Your task to perform on an android device: turn pop-ups off in chrome Image 0: 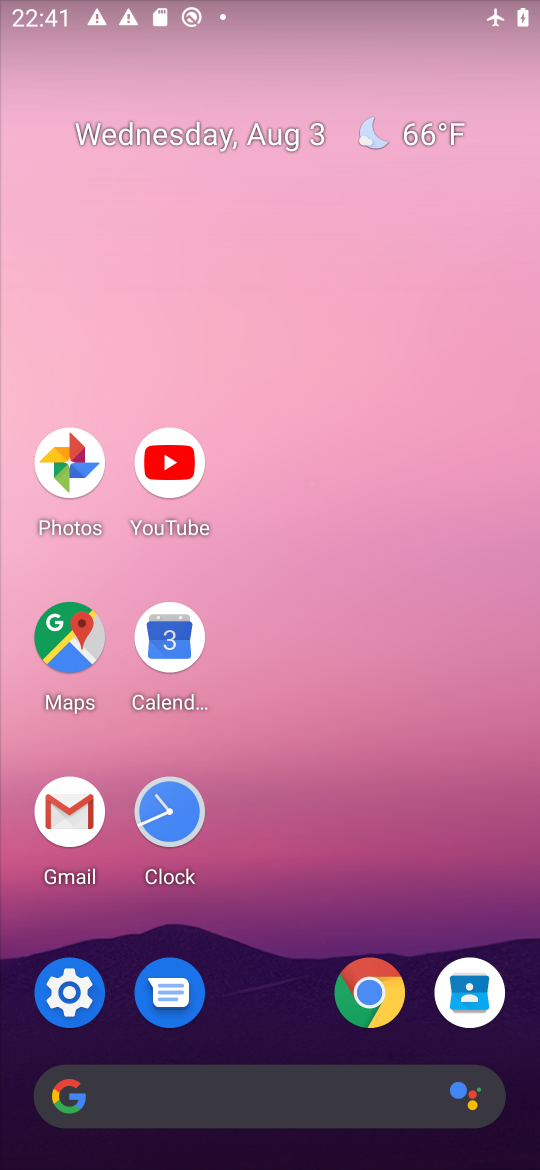
Step 0: click (371, 993)
Your task to perform on an android device: turn pop-ups off in chrome Image 1: 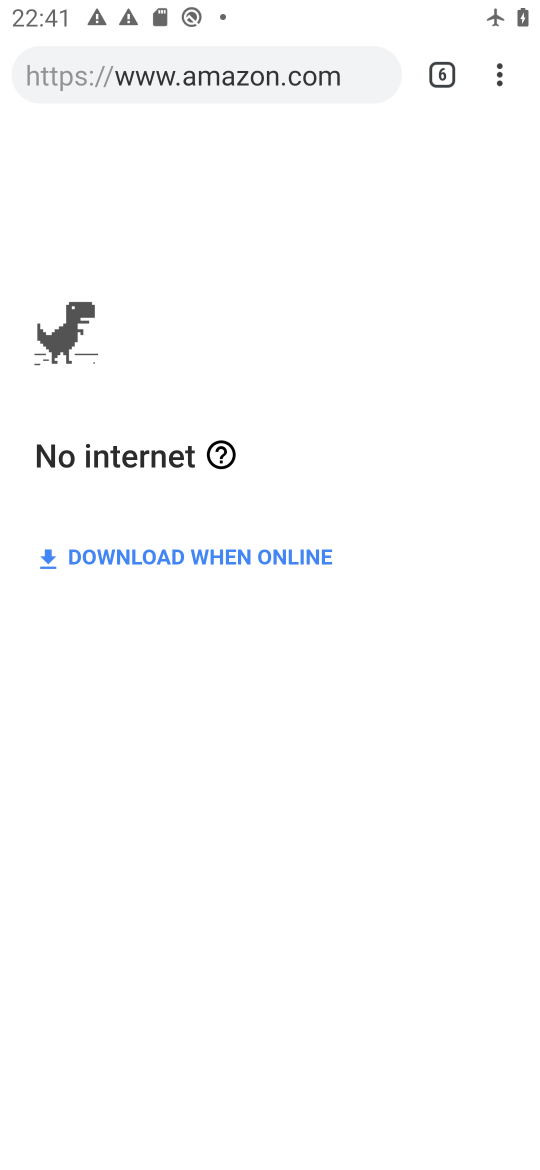
Step 1: click (498, 62)
Your task to perform on an android device: turn pop-ups off in chrome Image 2: 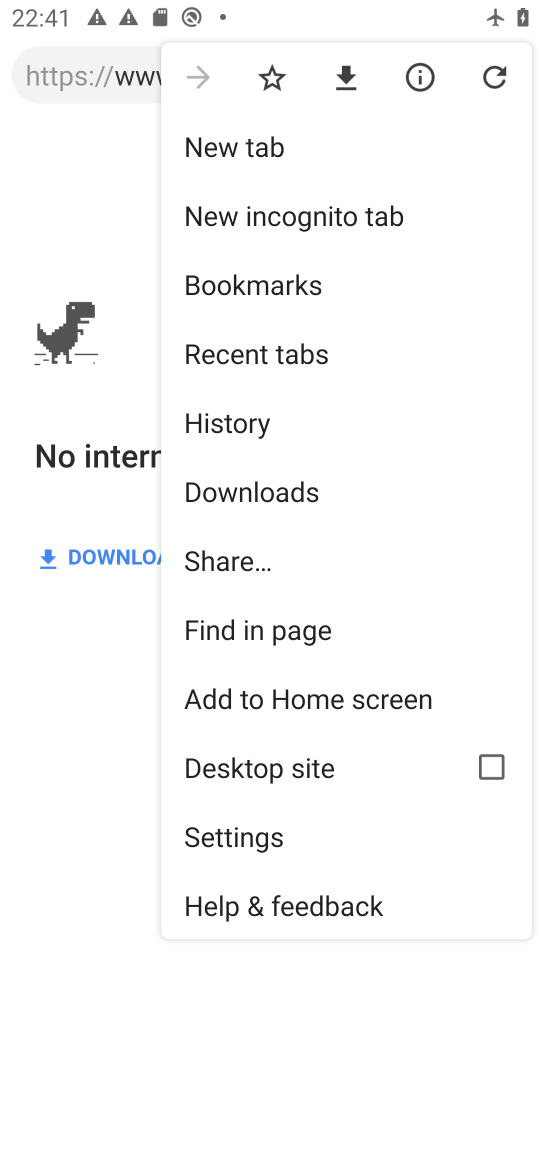
Step 2: click (228, 827)
Your task to perform on an android device: turn pop-ups off in chrome Image 3: 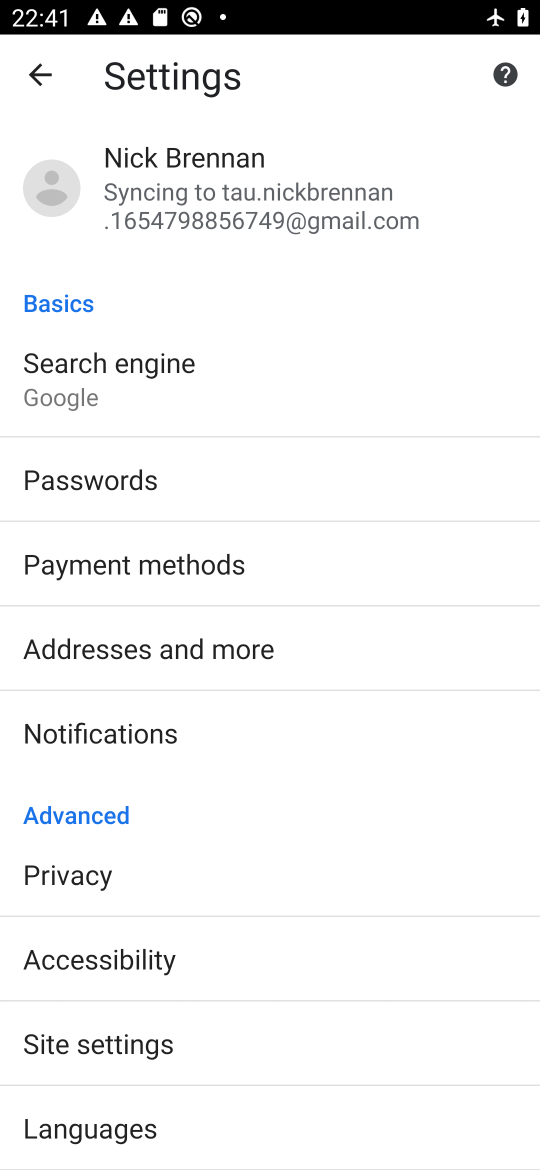
Step 3: drag from (288, 993) to (249, 589)
Your task to perform on an android device: turn pop-ups off in chrome Image 4: 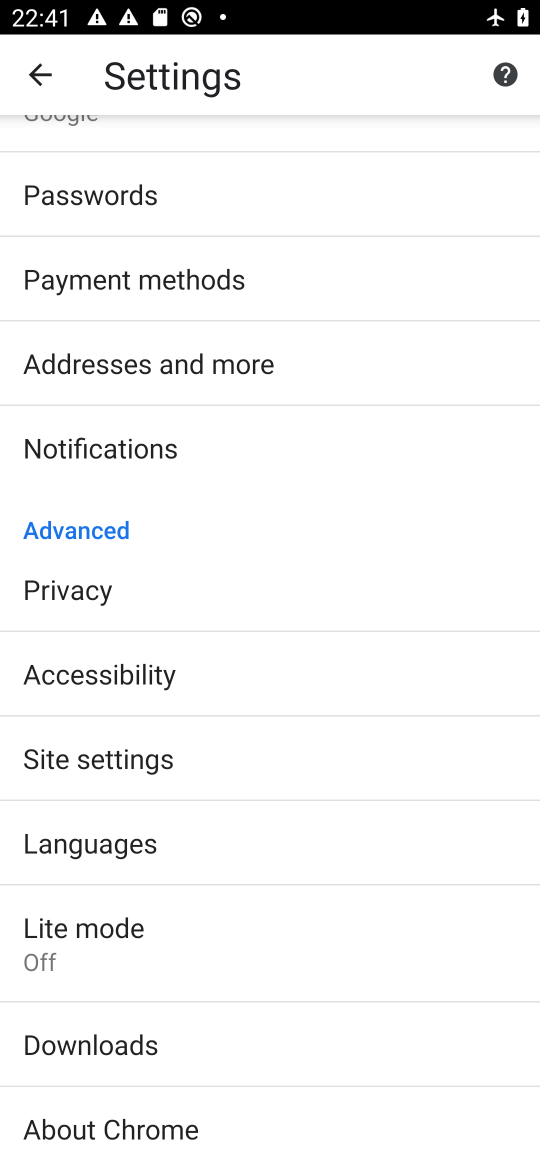
Step 4: click (78, 762)
Your task to perform on an android device: turn pop-ups off in chrome Image 5: 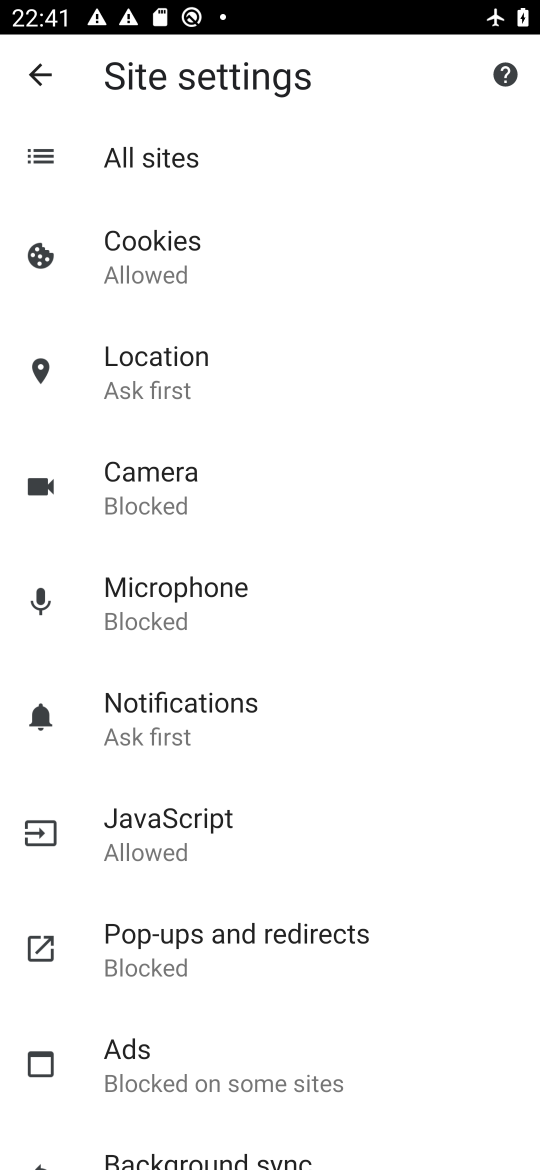
Step 5: click (201, 938)
Your task to perform on an android device: turn pop-ups off in chrome Image 6: 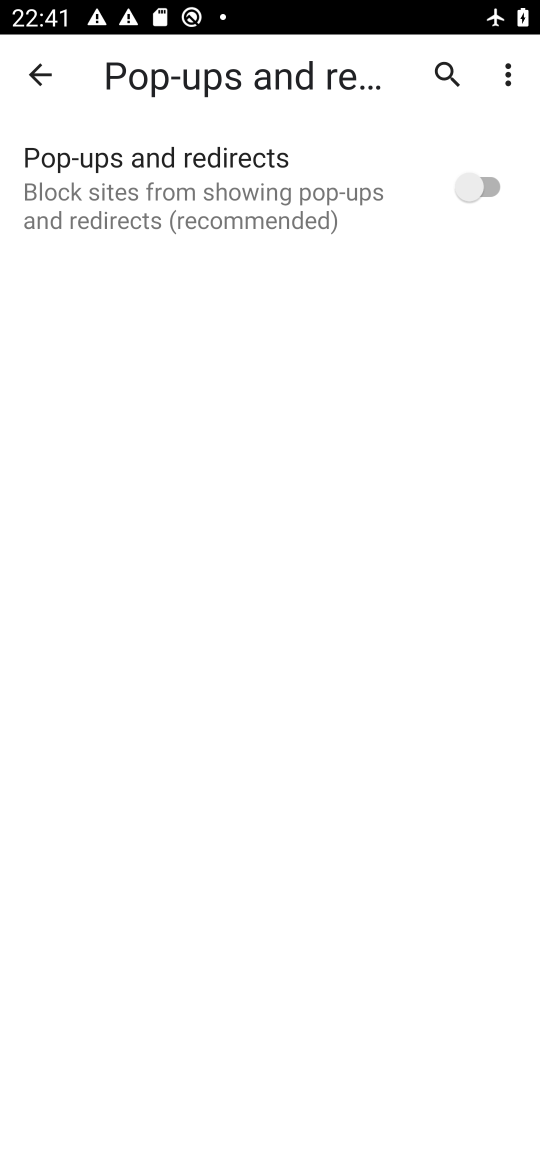
Step 6: task complete